Your task to perform on an android device: add a label to a message in the gmail app Image 0: 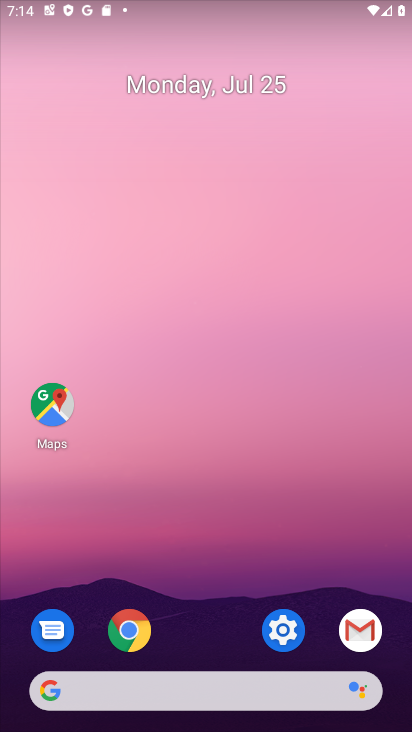
Step 0: click (381, 619)
Your task to perform on an android device: add a label to a message in the gmail app Image 1: 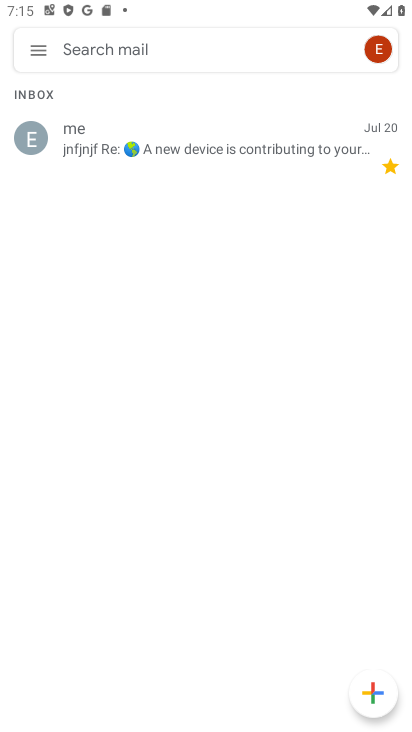
Step 1: click (27, 41)
Your task to perform on an android device: add a label to a message in the gmail app Image 2: 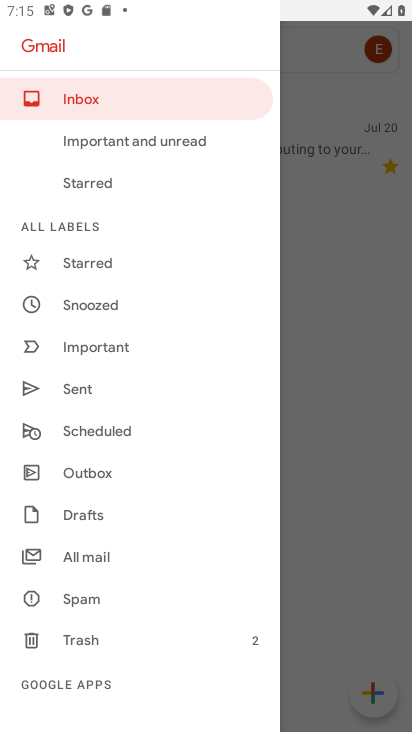
Step 2: drag from (87, 636) to (207, 264)
Your task to perform on an android device: add a label to a message in the gmail app Image 3: 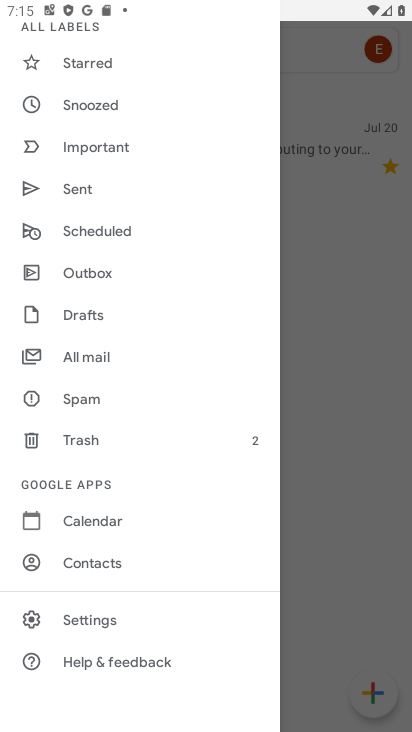
Step 3: click (96, 614)
Your task to perform on an android device: add a label to a message in the gmail app Image 4: 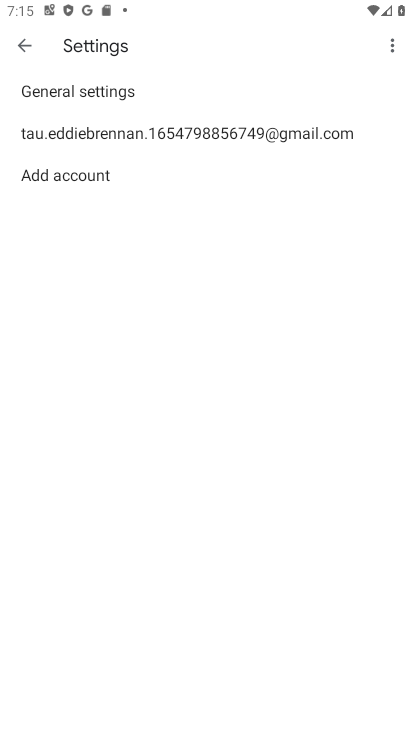
Step 4: click (160, 142)
Your task to perform on an android device: add a label to a message in the gmail app Image 5: 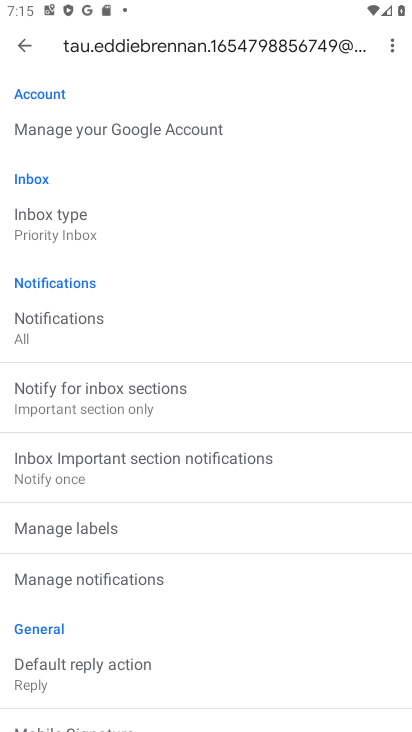
Step 5: click (100, 533)
Your task to perform on an android device: add a label to a message in the gmail app Image 6: 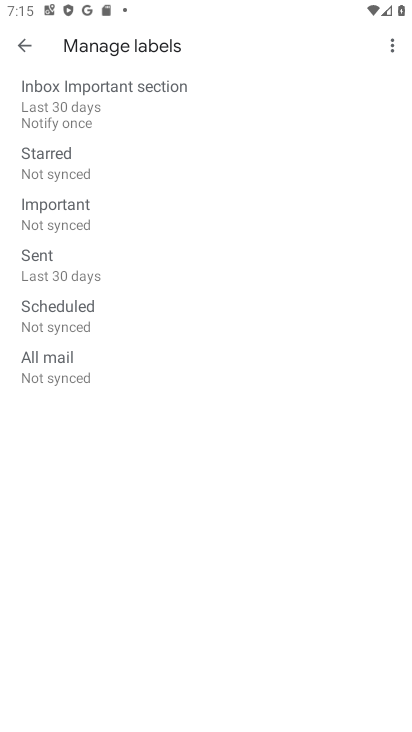
Step 6: click (133, 92)
Your task to perform on an android device: add a label to a message in the gmail app Image 7: 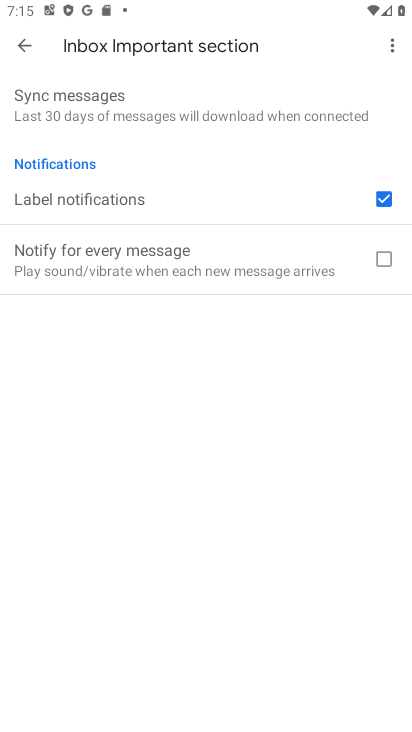
Step 7: task complete